Your task to perform on an android device: Turn off the flashlight Image 0: 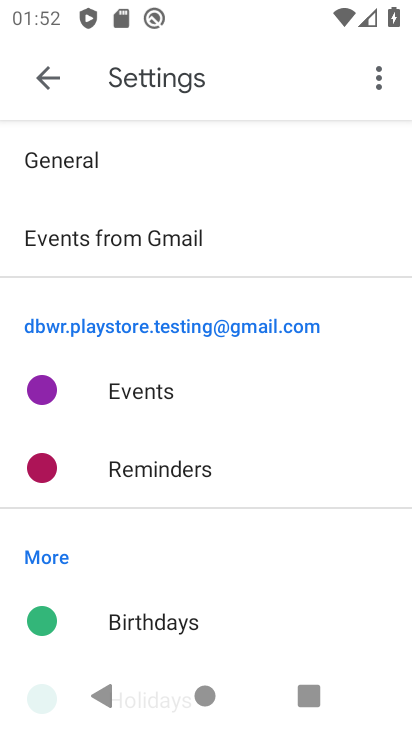
Step 0: press home button
Your task to perform on an android device: Turn off the flashlight Image 1: 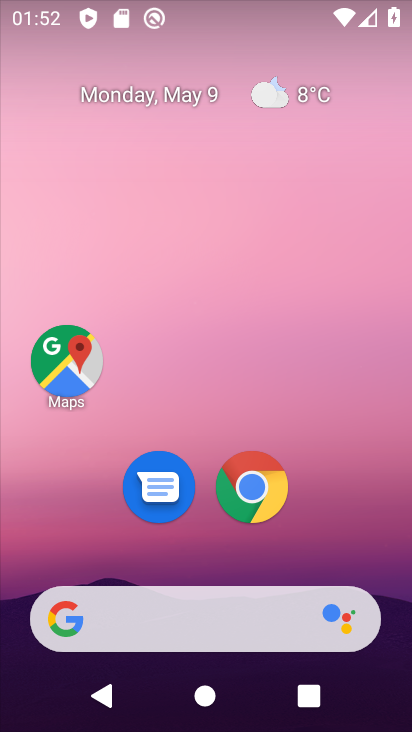
Step 1: drag from (356, 6) to (304, 499)
Your task to perform on an android device: Turn off the flashlight Image 2: 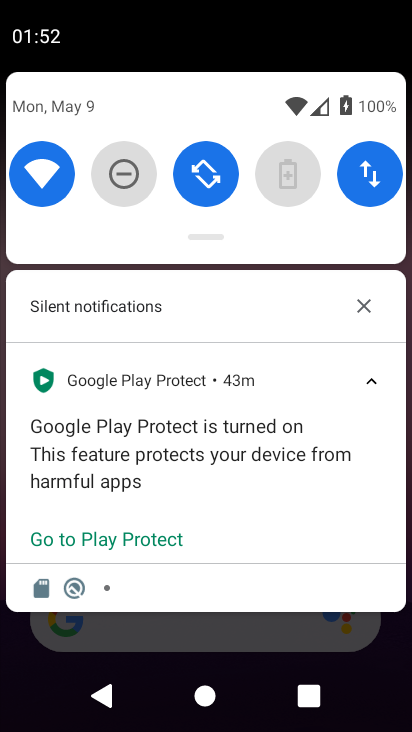
Step 2: drag from (239, 237) to (245, 588)
Your task to perform on an android device: Turn off the flashlight Image 3: 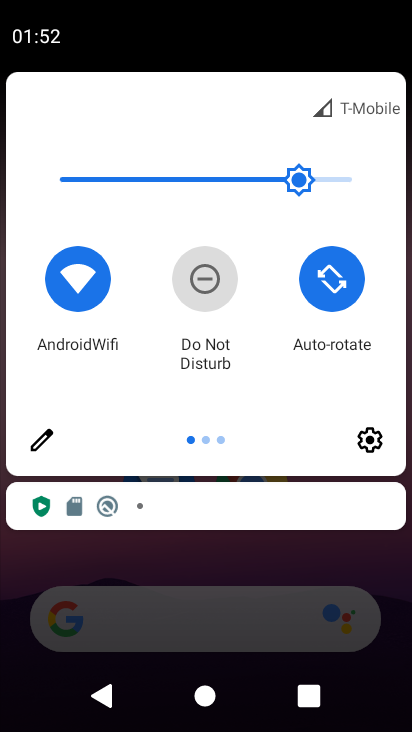
Step 3: click (37, 434)
Your task to perform on an android device: Turn off the flashlight Image 4: 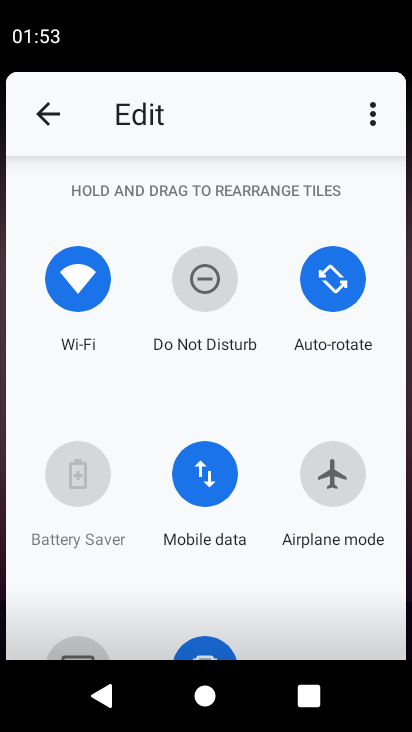
Step 4: task complete